Your task to perform on an android device: Search for Italian restaurants on Maps Image 0: 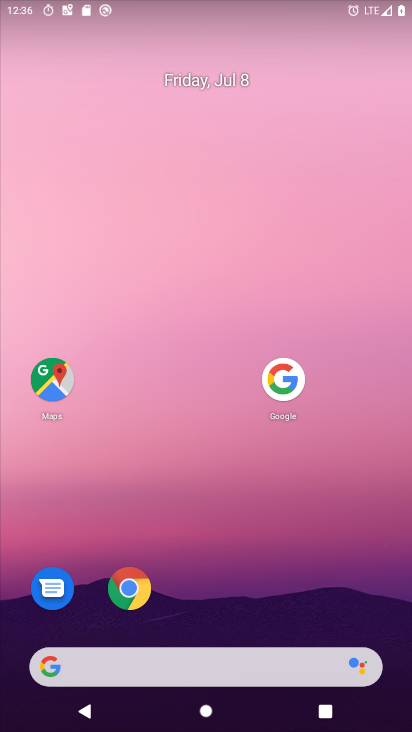
Step 0: click (56, 383)
Your task to perform on an android device: Search for Italian restaurants on Maps Image 1: 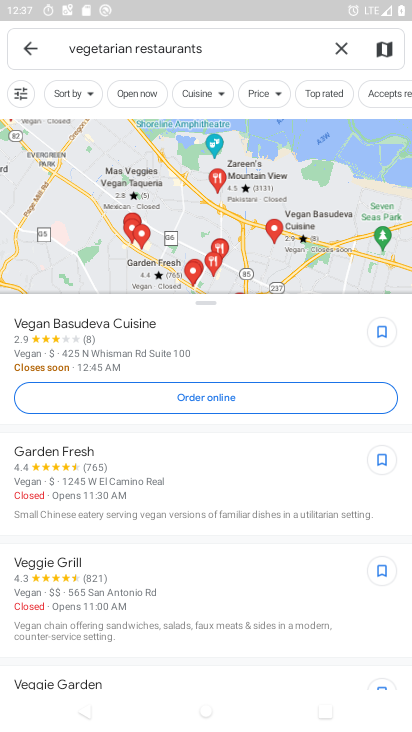
Step 1: click (339, 46)
Your task to perform on an android device: Search for Italian restaurants on Maps Image 2: 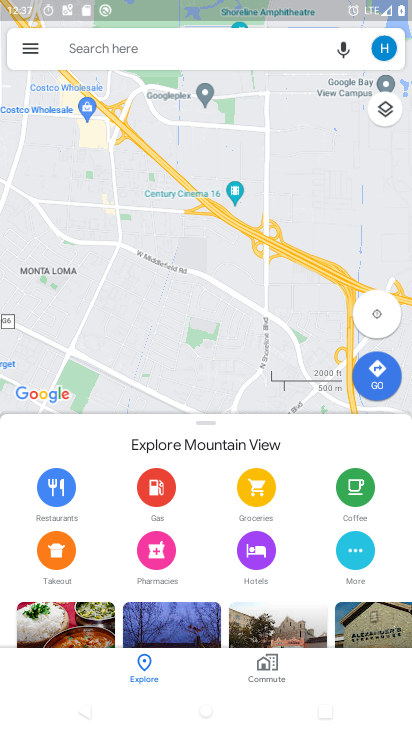
Step 2: click (179, 44)
Your task to perform on an android device: Search for Italian restaurants on Maps Image 3: 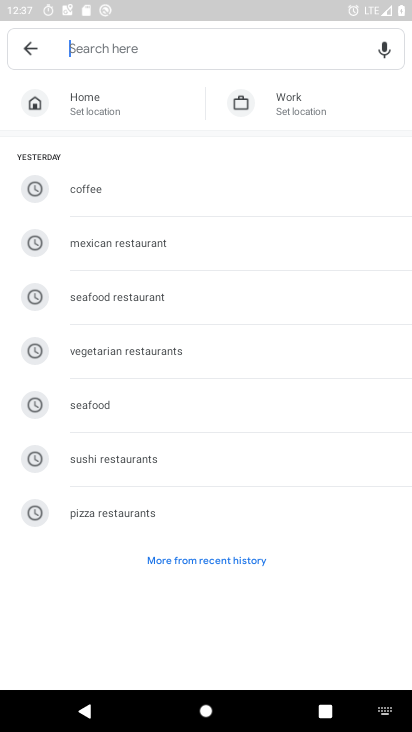
Step 3: type " Italian restaurants"
Your task to perform on an android device: Search for Italian restaurants on Maps Image 4: 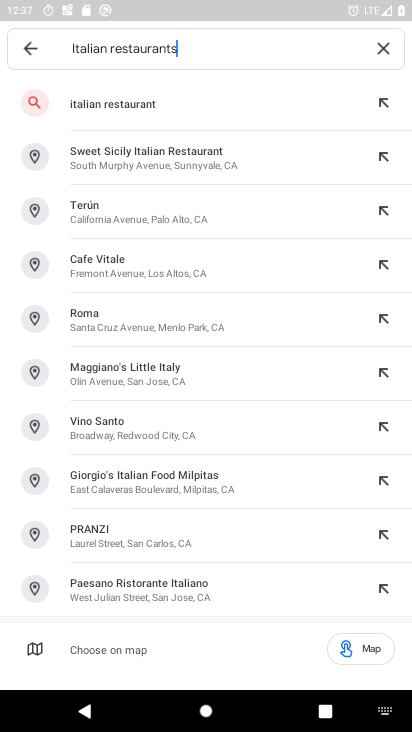
Step 4: click (111, 108)
Your task to perform on an android device: Search for Italian restaurants on Maps Image 5: 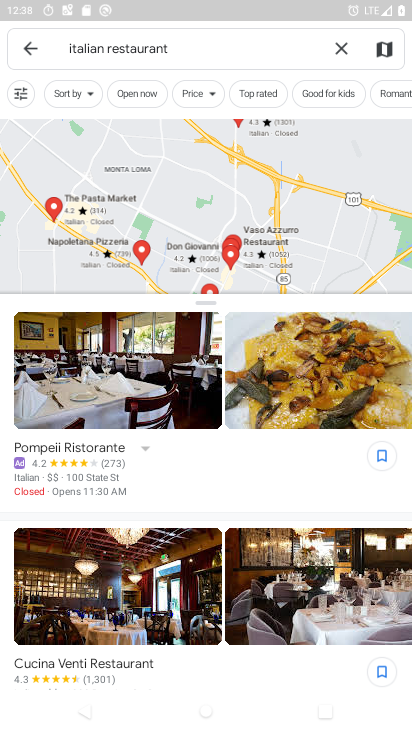
Step 5: task complete